Your task to perform on an android device: Open Youtube and go to "Your channel" Image 0: 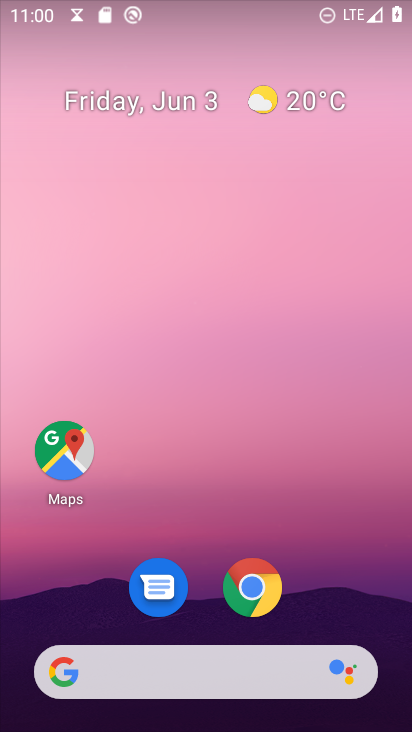
Step 0: drag from (269, 218) to (161, 7)
Your task to perform on an android device: Open Youtube and go to "Your channel" Image 1: 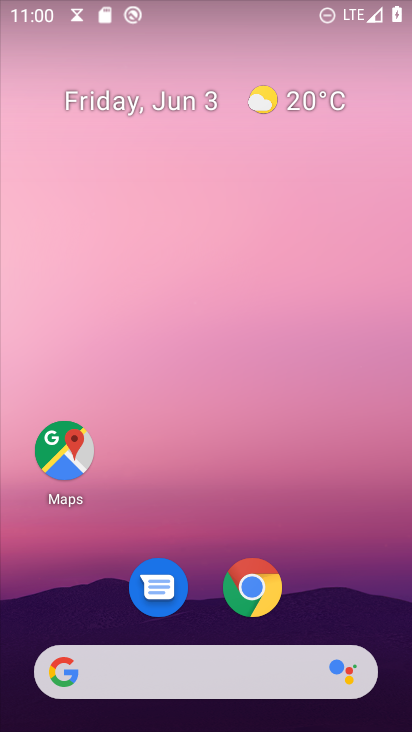
Step 1: drag from (322, 276) to (204, 45)
Your task to perform on an android device: Open Youtube and go to "Your channel" Image 2: 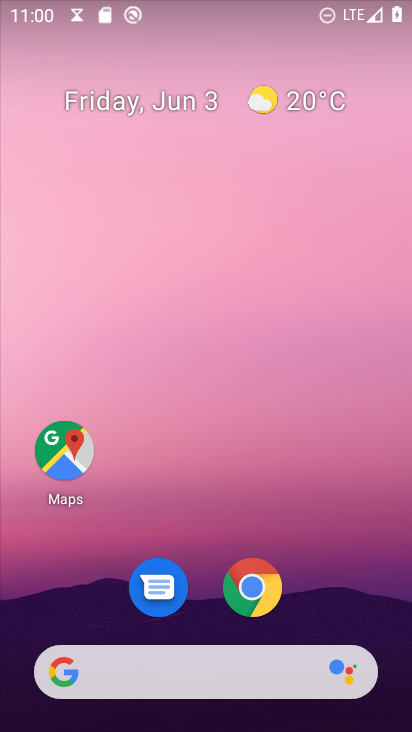
Step 2: drag from (345, 595) to (152, 111)
Your task to perform on an android device: Open Youtube and go to "Your channel" Image 3: 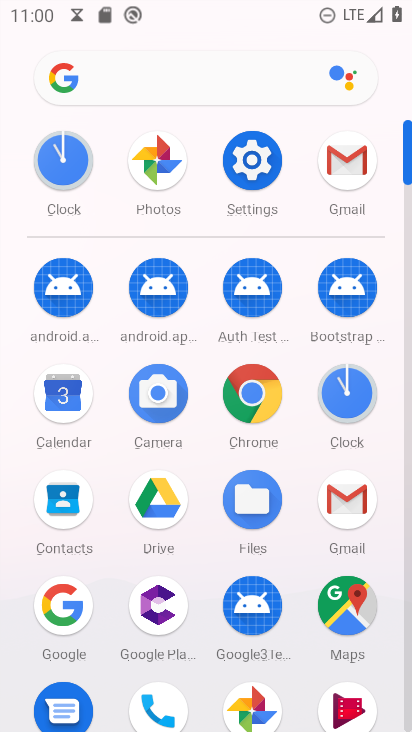
Step 3: drag from (205, 464) to (189, 84)
Your task to perform on an android device: Open Youtube and go to "Your channel" Image 4: 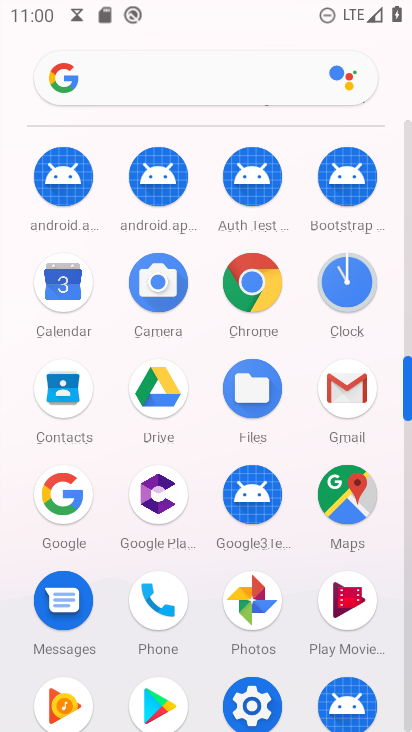
Step 4: drag from (132, 585) to (106, 1)
Your task to perform on an android device: Open Youtube and go to "Your channel" Image 5: 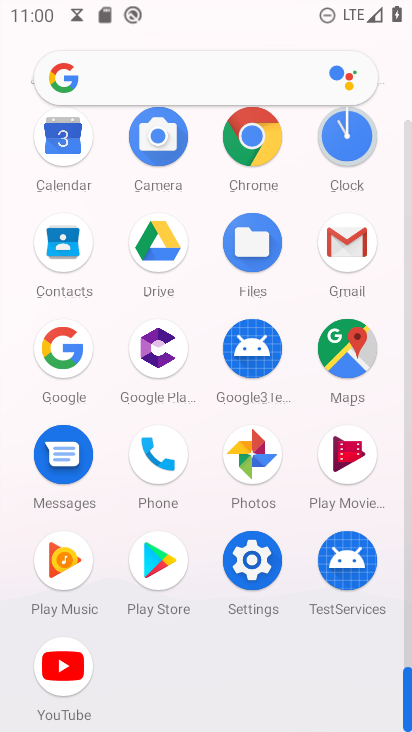
Step 5: click (75, 672)
Your task to perform on an android device: Open Youtube and go to "Your channel" Image 6: 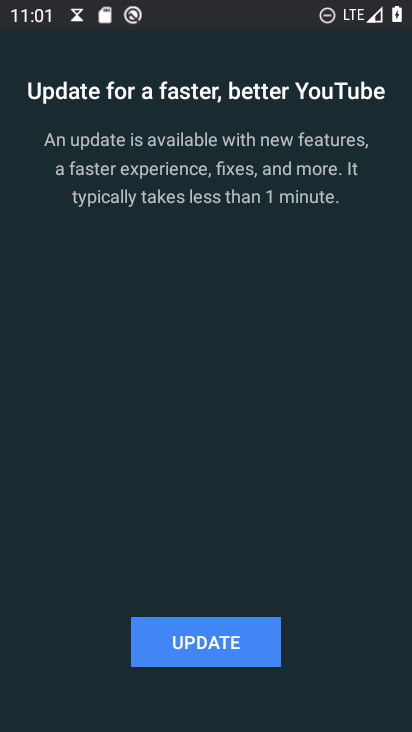
Step 6: click (235, 635)
Your task to perform on an android device: Open Youtube and go to "Your channel" Image 7: 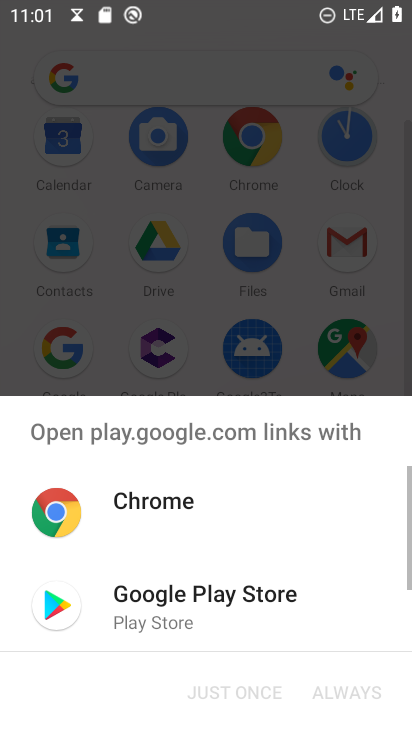
Step 7: click (184, 601)
Your task to perform on an android device: Open Youtube and go to "Your channel" Image 8: 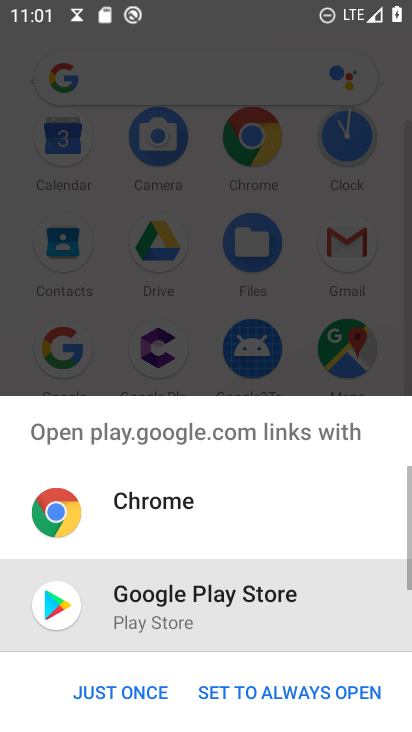
Step 8: click (98, 697)
Your task to perform on an android device: Open Youtube and go to "Your channel" Image 9: 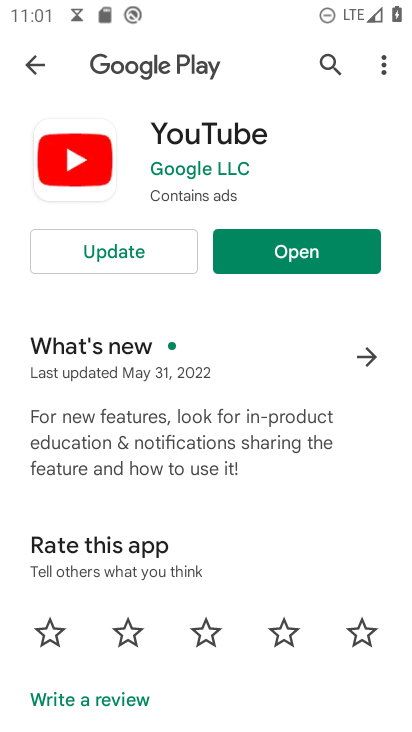
Step 9: click (139, 245)
Your task to perform on an android device: Open Youtube and go to "Your channel" Image 10: 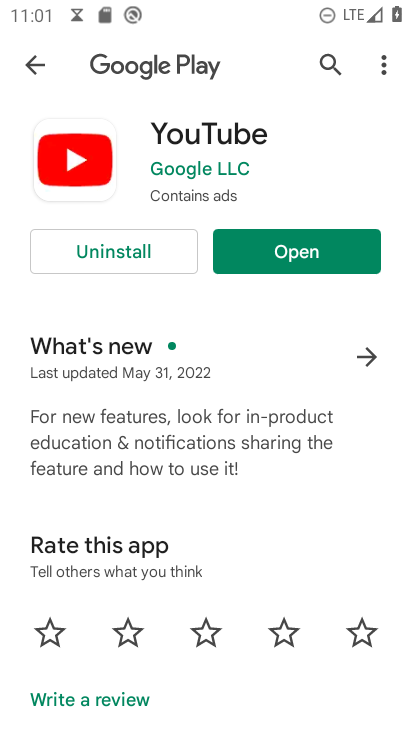
Step 10: click (291, 251)
Your task to perform on an android device: Open Youtube and go to "Your channel" Image 11: 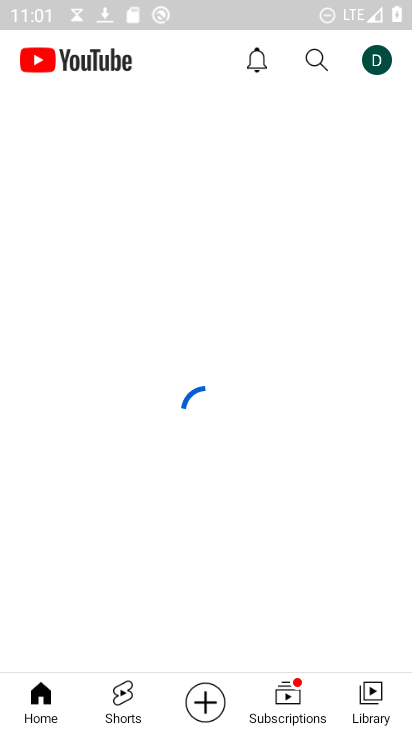
Step 11: click (379, 58)
Your task to perform on an android device: Open Youtube and go to "Your channel" Image 12: 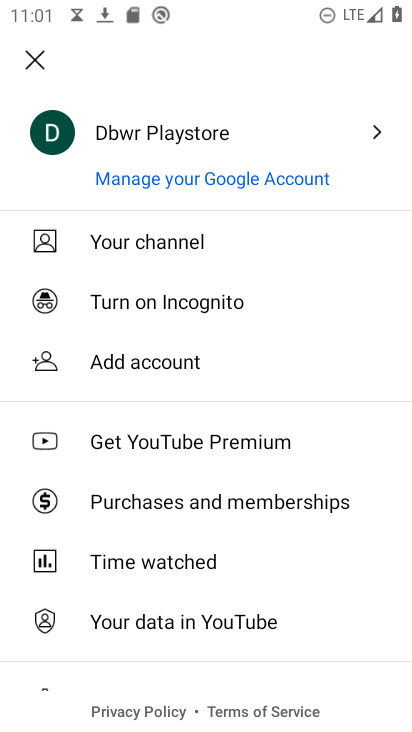
Step 12: click (173, 254)
Your task to perform on an android device: Open Youtube and go to "Your channel" Image 13: 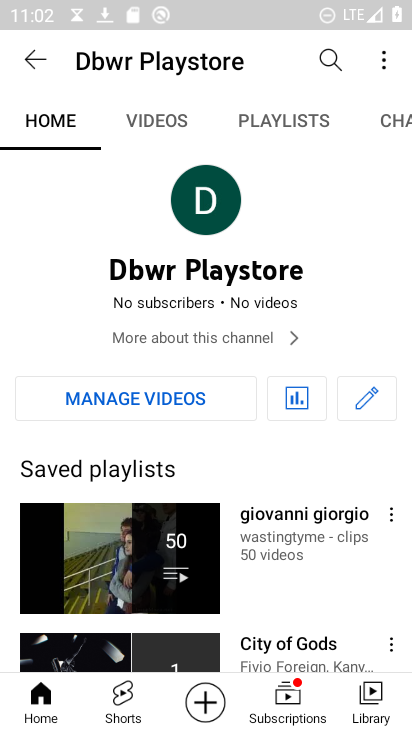
Step 13: task complete